Your task to perform on an android device: allow cookies in the chrome app Image 0: 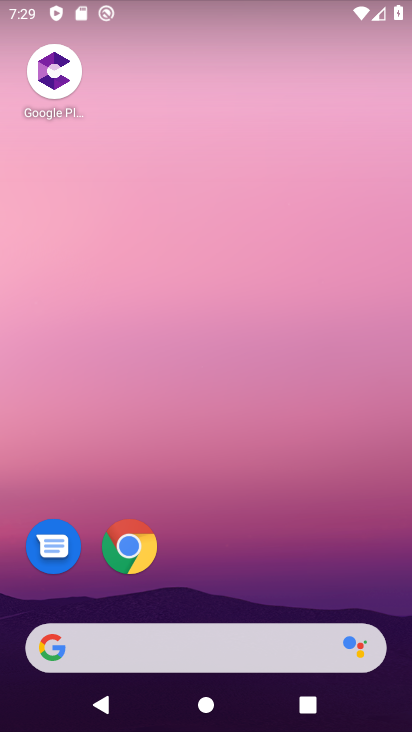
Step 0: click (119, 528)
Your task to perform on an android device: allow cookies in the chrome app Image 1: 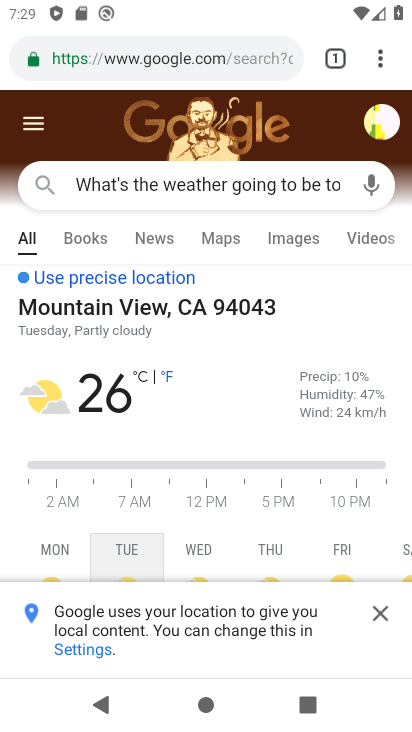
Step 1: click (378, 54)
Your task to perform on an android device: allow cookies in the chrome app Image 2: 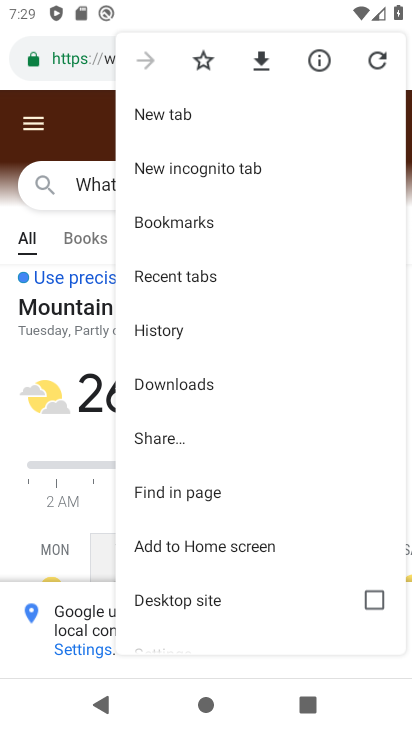
Step 2: drag from (200, 569) to (215, 263)
Your task to perform on an android device: allow cookies in the chrome app Image 3: 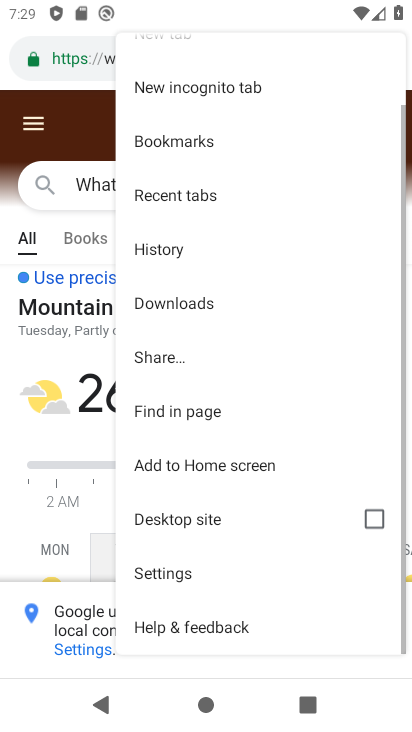
Step 3: click (185, 572)
Your task to perform on an android device: allow cookies in the chrome app Image 4: 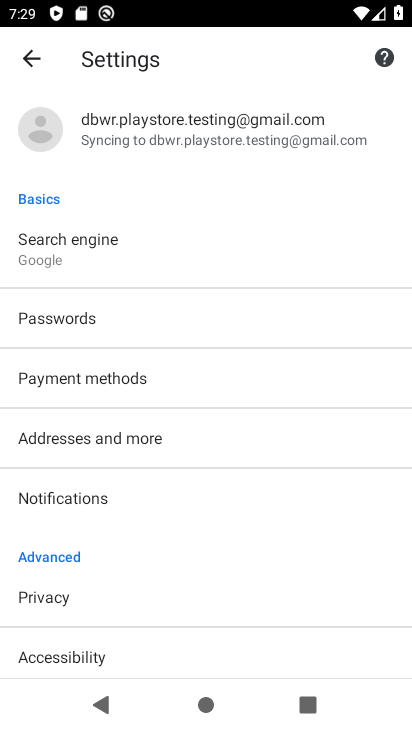
Step 4: drag from (94, 600) to (152, 321)
Your task to perform on an android device: allow cookies in the chrome app Image 5: 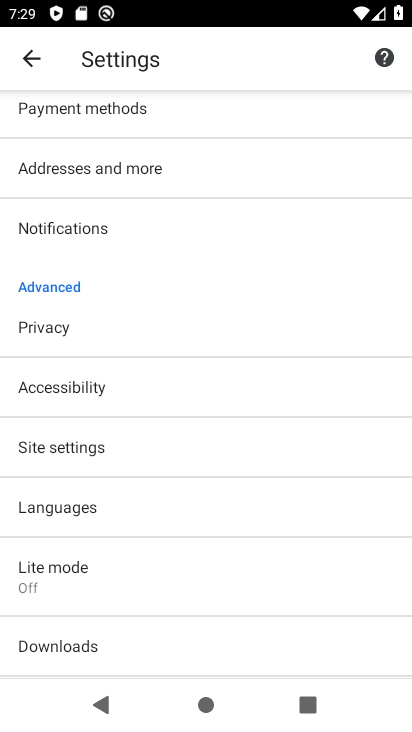
Step 5: click (98, 437)
Your task to perform on an android device: allow cookies in the chrome app Image 6: 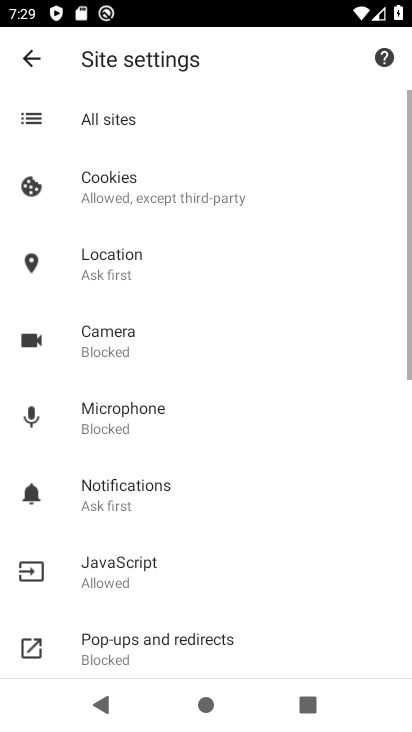
Step 6: click (175, 185)
Your task to perform on an android device: allow cookies in the chrome app Image 7: 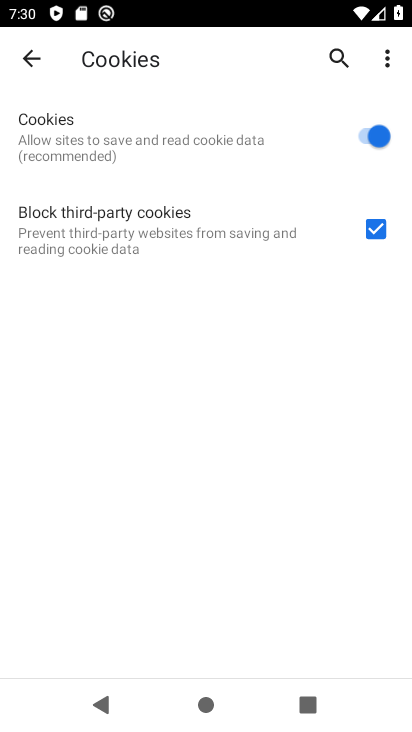
Step 7: task complete